Your task to perform on an android device: What is the news today? Image 0: 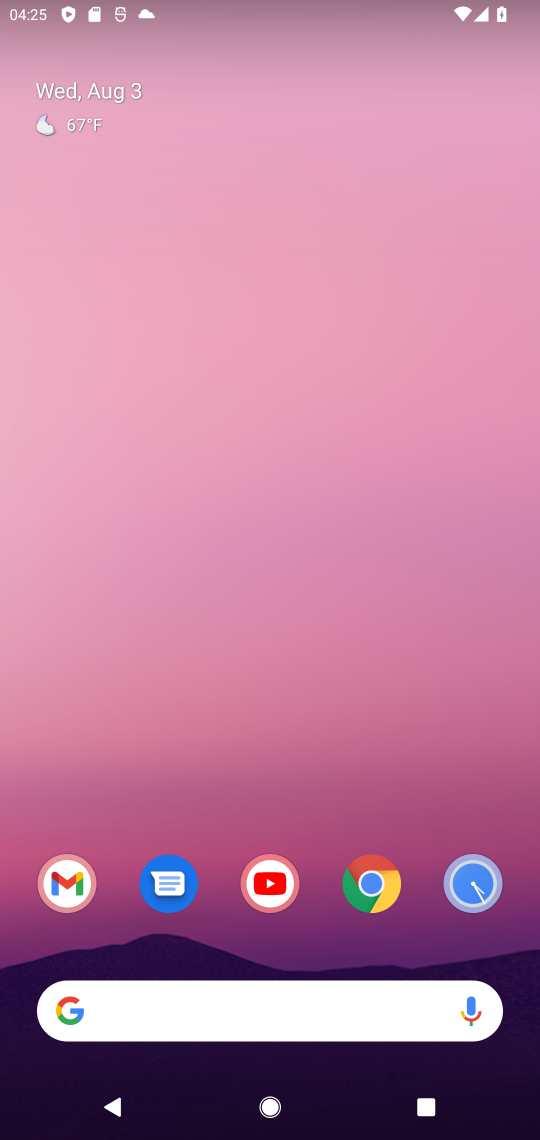
Step 0: drag from (247, 943) to (268, 798)
Your task to perform on an android device: What is the news today? Image 1: 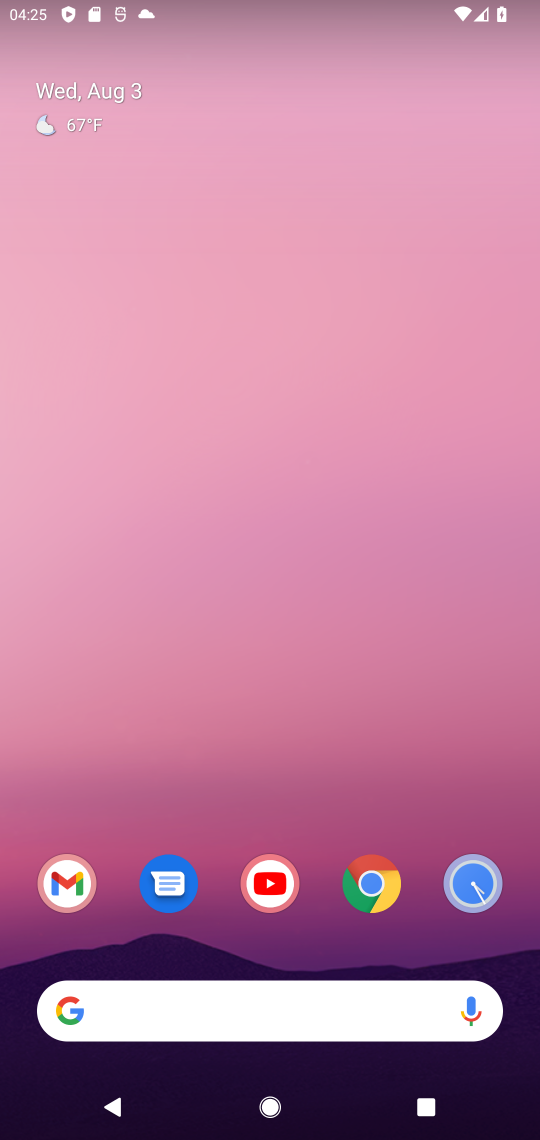
Step 1: click (238, 1010)
Your task to perform on an android device: What is the news today? Image 2: 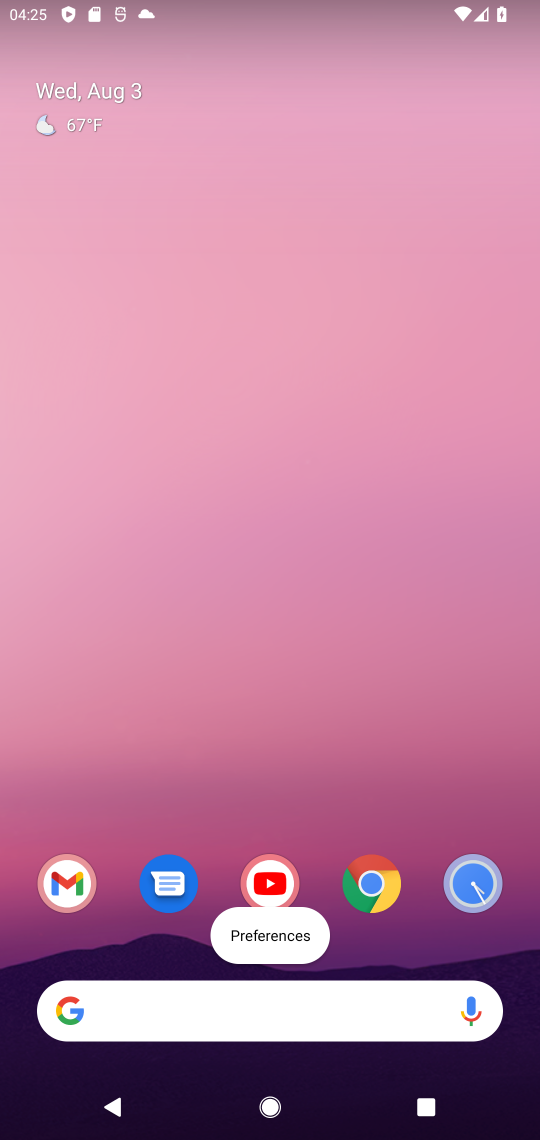
Step 2: click (312, 997)
Your task to perform on an android device: What is the news today? Image 3: 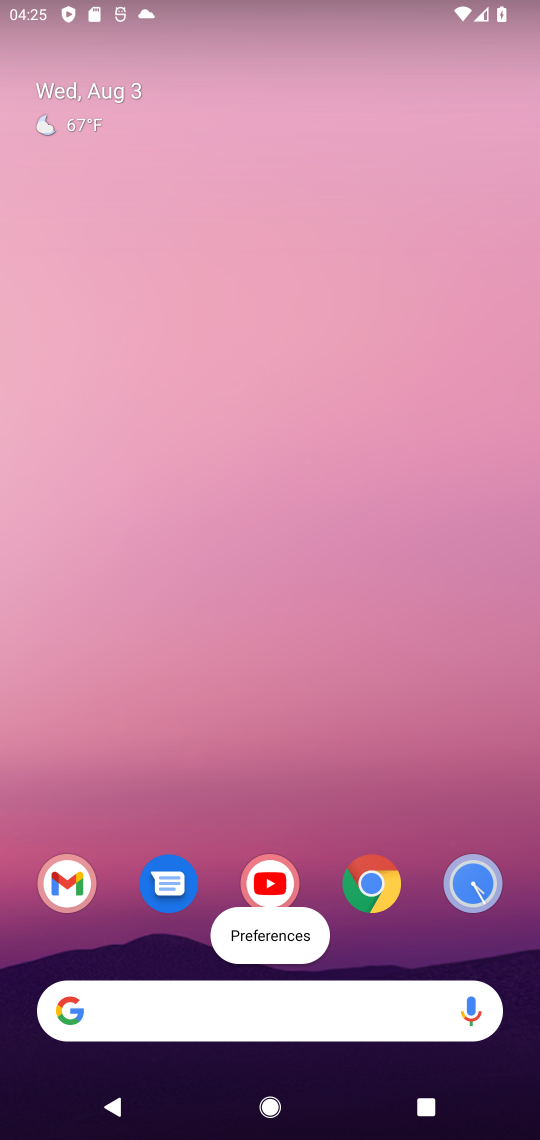
Step 3: click (310, 1003)
Your task to perform on an android device: What is the news today? Image 4: 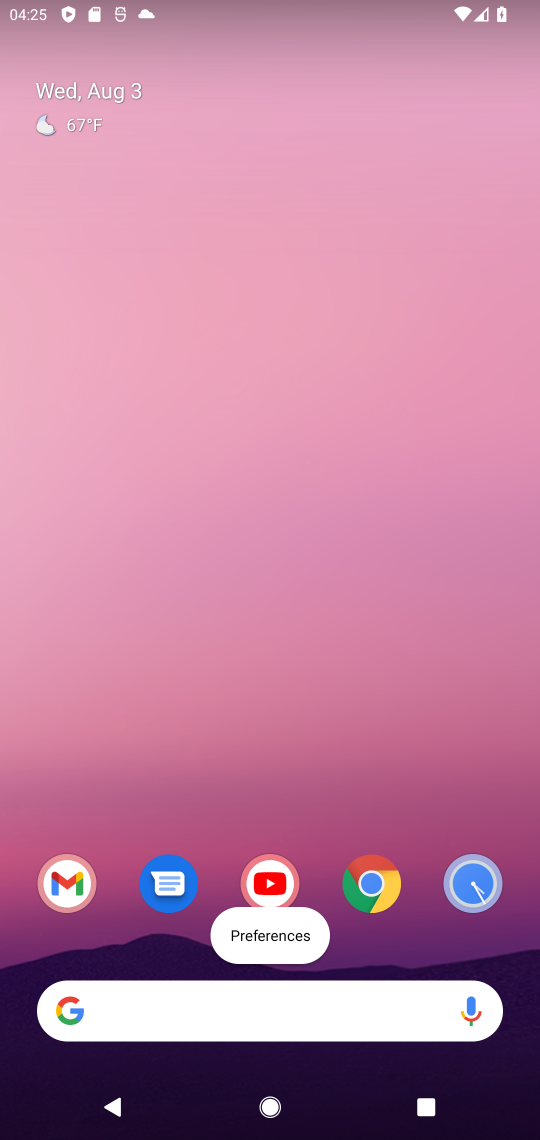
Step 4: click (310, 1003)
Your task to perform on an android device: What is the news today? Image 5: 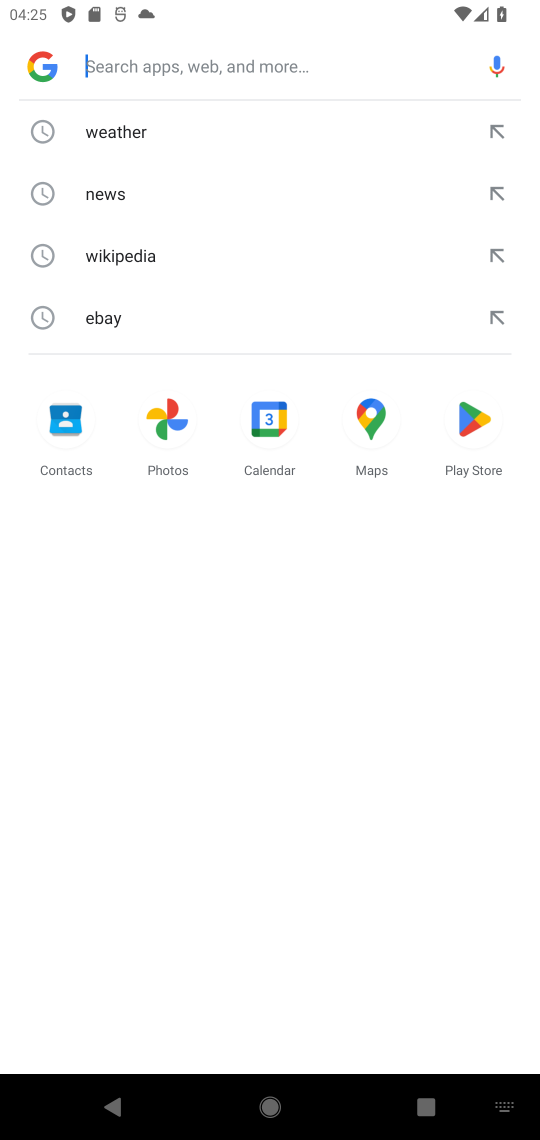
Step 5: type "news today"
Your task to perform on an android device: What is the news today? Image 6: 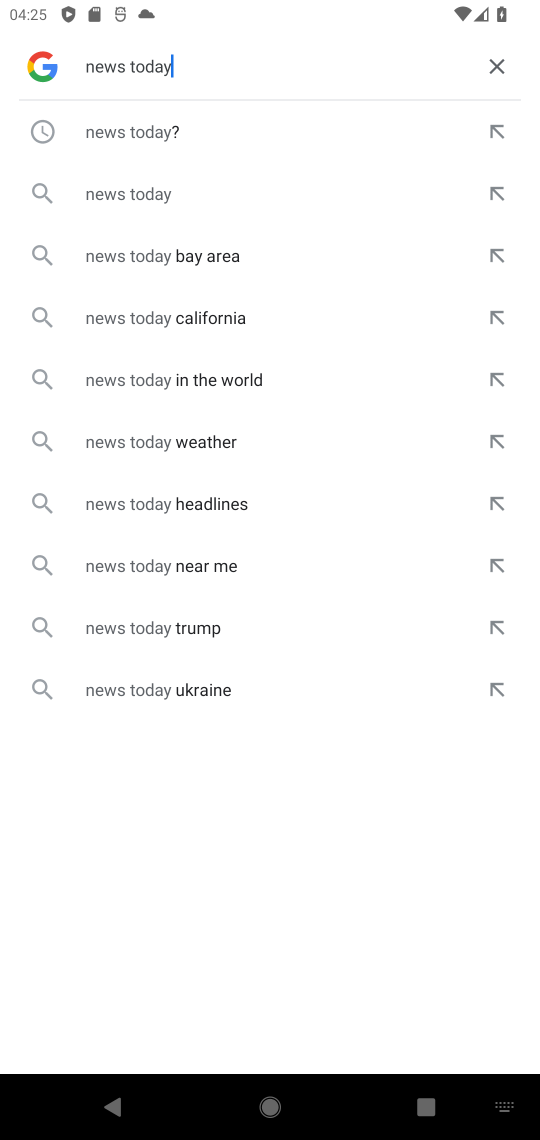
Step 6: click (201, 143)
Your task to perform on an android device: What is the news today? Image 7: 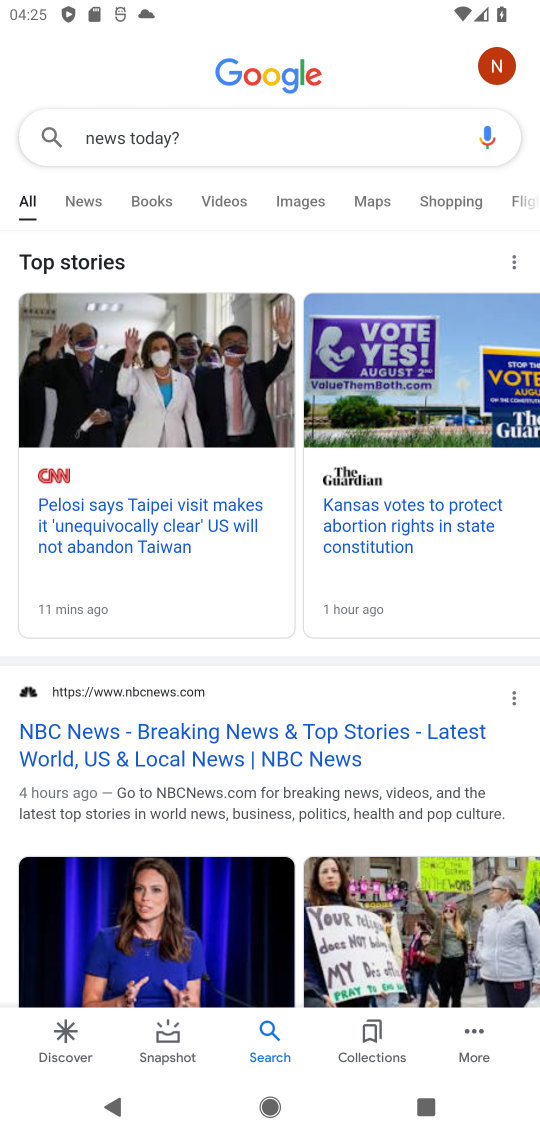
Step 7: task complete